Your task to perform on an android device: turn notification dots on Image 0: 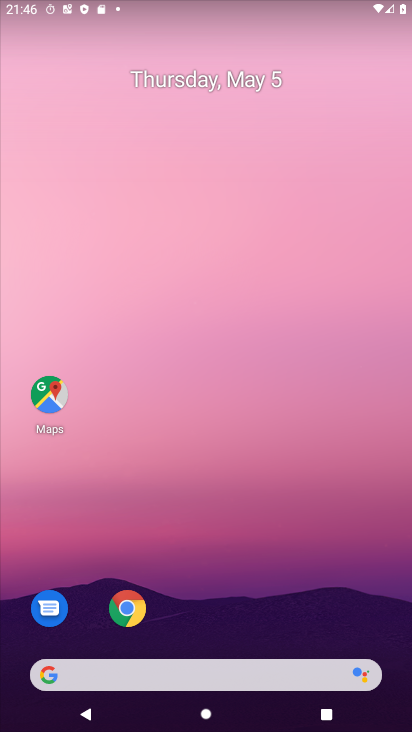
Step 0: drag from (298, 645) to (311, 9)
Your task to perform on an android device: turn notification dots on Image 1: 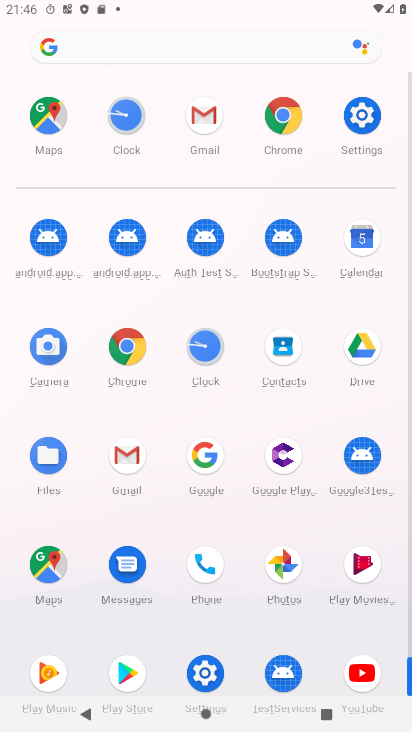
Step 1: click (366, 113)
Your task to perform on an android device: turn notification dots on Image 2: 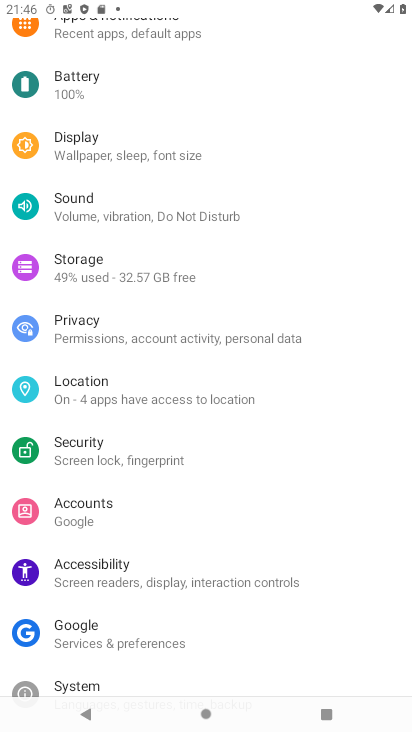
Step 2: drag from (153, 139) to (199, 592)
Your task to perform on an android device: turn notification dots on Image 3: 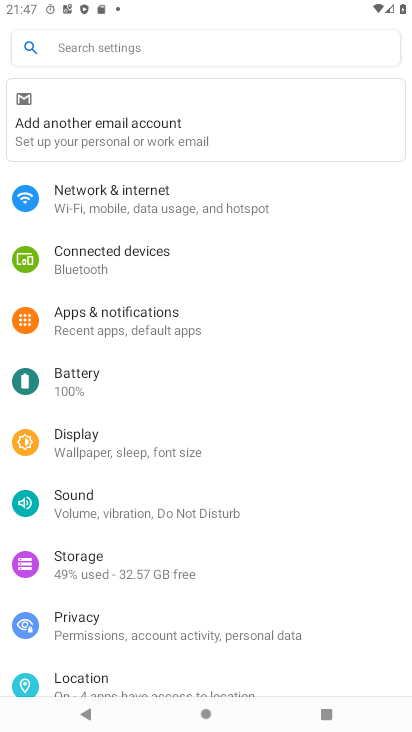
Step 3: click (150, 324)
Your task to perform on an android device: turn notification dots on Image 4: 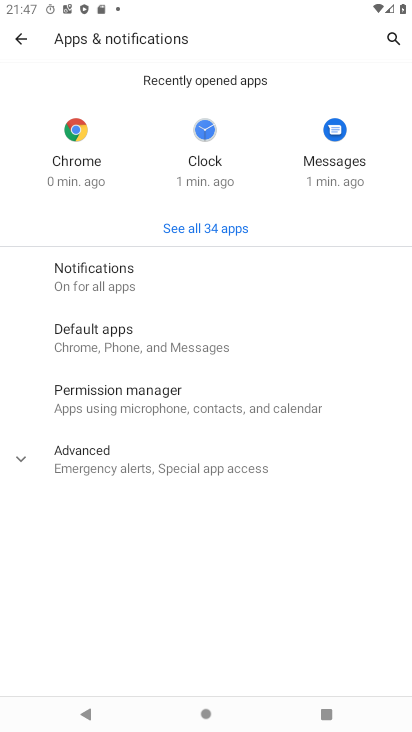
Step 4: click (160, 268)
Your task to perform on an android device: turn notification dots on Image 5: 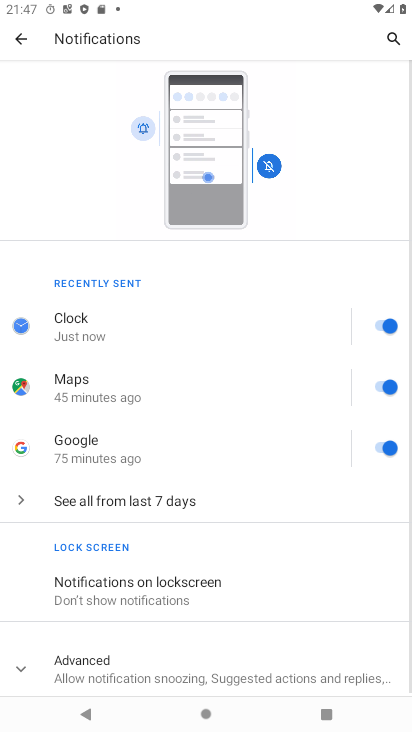
Step 5: drag from (222, 627) to (247, 327)
Your task to perform on an android device: turn notification dots on Image 6: 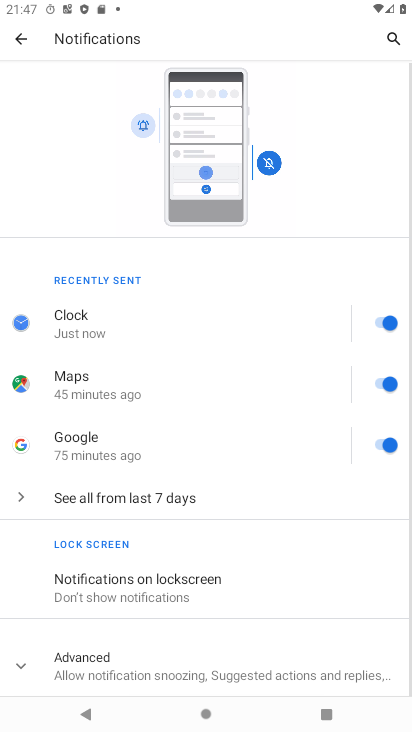
Step 6: click (225, 666)
Your task to perform on an android device: turn notification dots on Image 7: 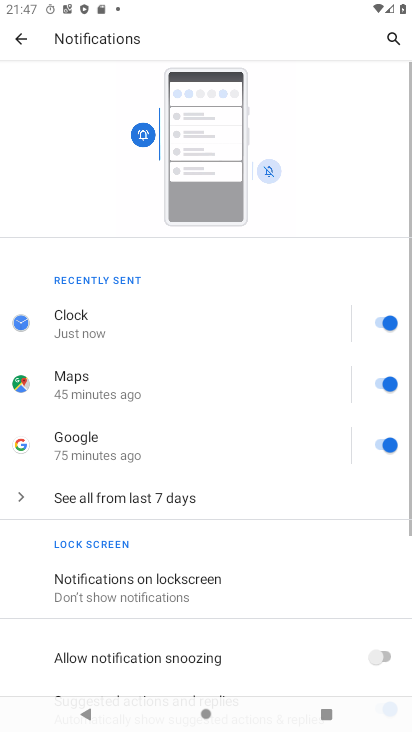
Step 7: drag from (225, 666) to (193, 225)
Your task to perform on an android device: turn notification dots on Image 8: 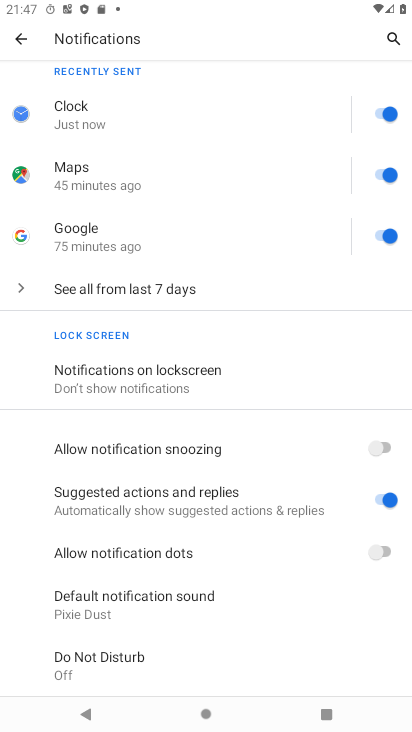
Step 8: click (385, 548)
Your task to perform on an android device: turn notification dots on Image 9: 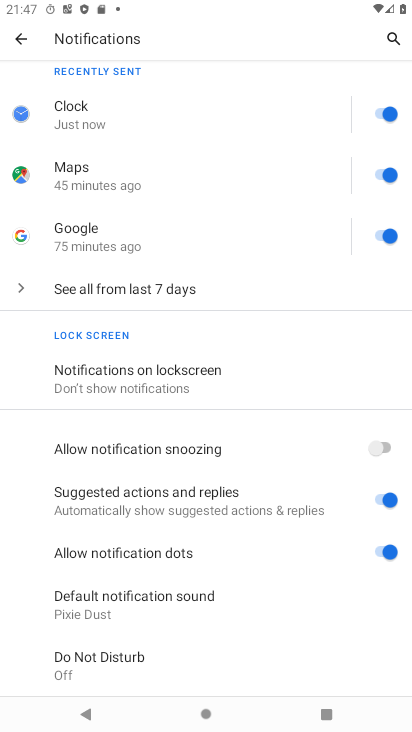
Step 9: task complete